Your task to perform on an android device: change your default location settings in chrome Image 0: 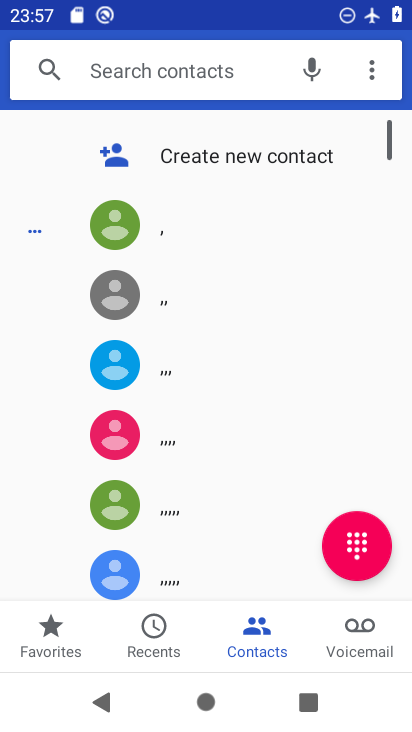
Step 0: press home button
Your task to perform on an android device: change your default location settings in chrome Image 1: 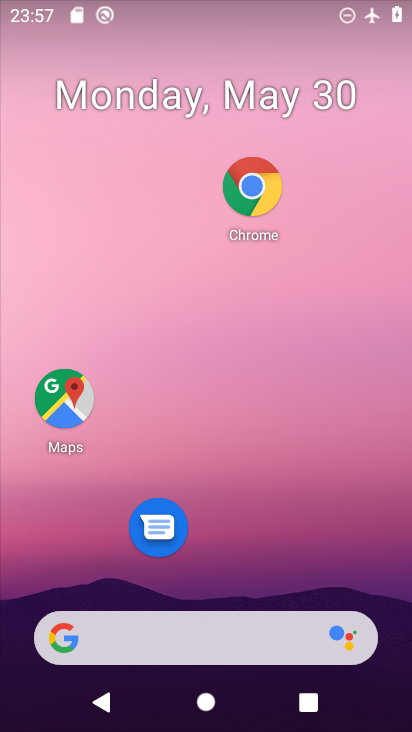
Step 1: drag from (222, 572) to (263, 207)
Your task to perform on an android device: change your default location settings in chrome Image 2: 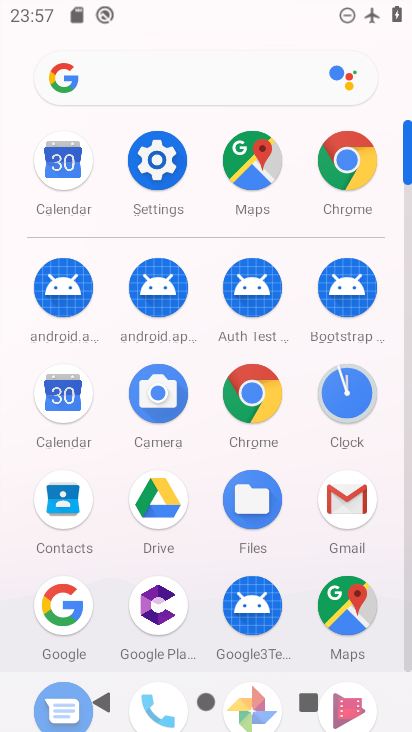
Step 2: click (233, 390)
Your task to perform on an android device: change your default location settings in chrome Image 3: 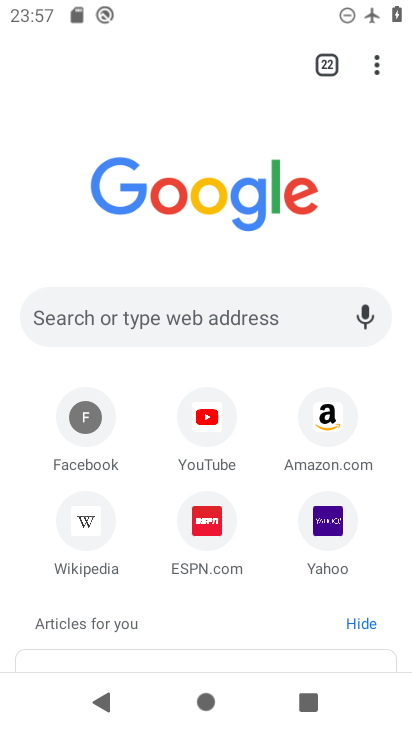
Step 3: click (379, 53)
Your task to perform on an android device: change your default location settings in chrome Image 4: 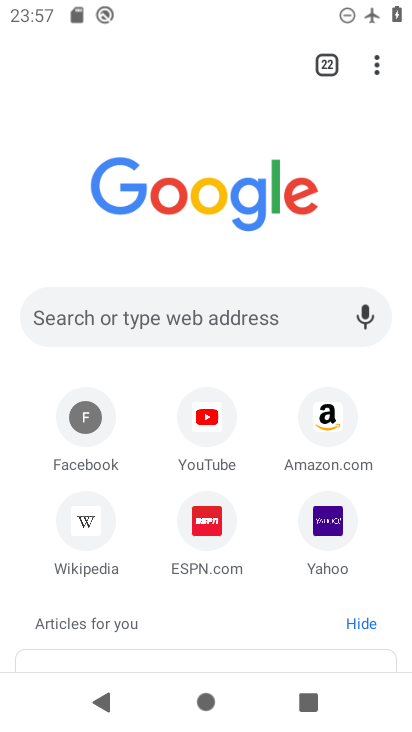
Step 4: click (374, 62)
Your task to perform on an android device: change your default location settings in chrome Image 5: 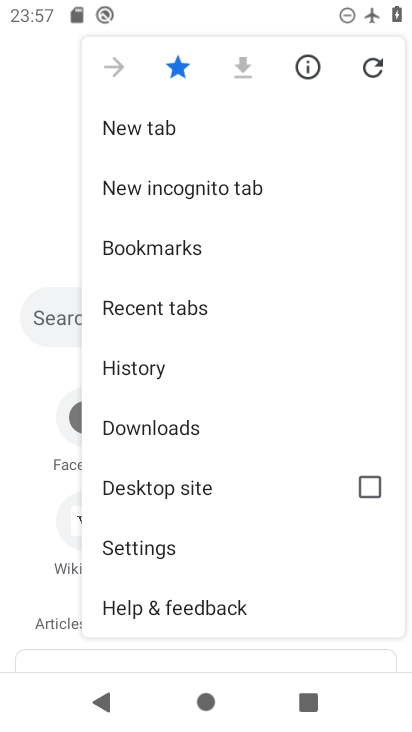
Step 5: click (209, 547)
Your task to perform on an android device: change your default location settings in chrome Image 6: 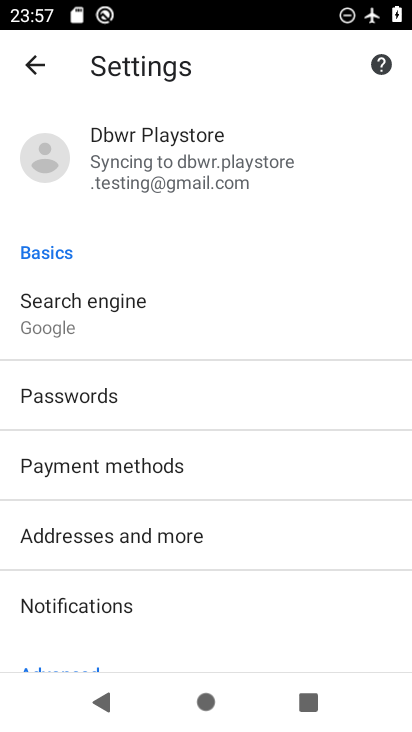
Step 6: drag from (146, 582) to (139, 320)
Your task to perform on an android device: change your default location settings in chrome Image 7: 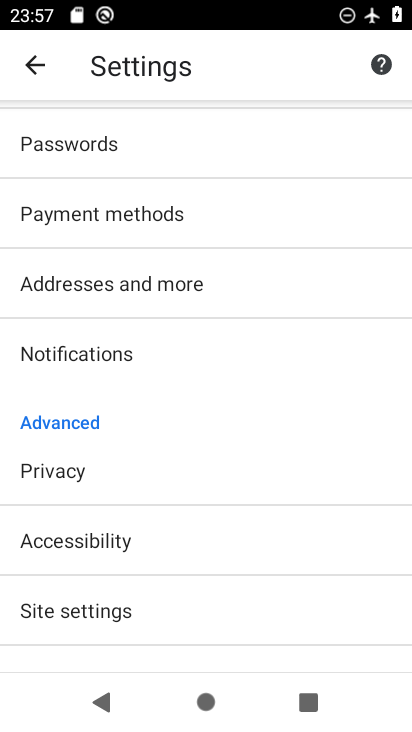
Step 7: drag from (166, 624) to (178, 336)
Your task to perform on an android device: change your default location settings in chrome Image 8: 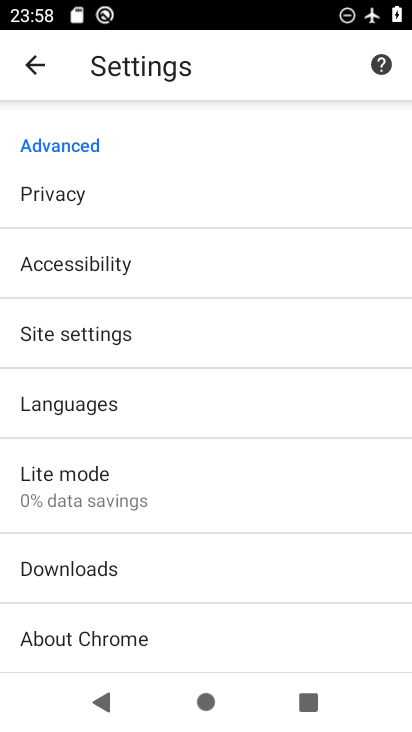
Step 8: drag from (240, 564) to (235, 430)
Your task to perform on an android device: change your default location settings in chrome Image 9: 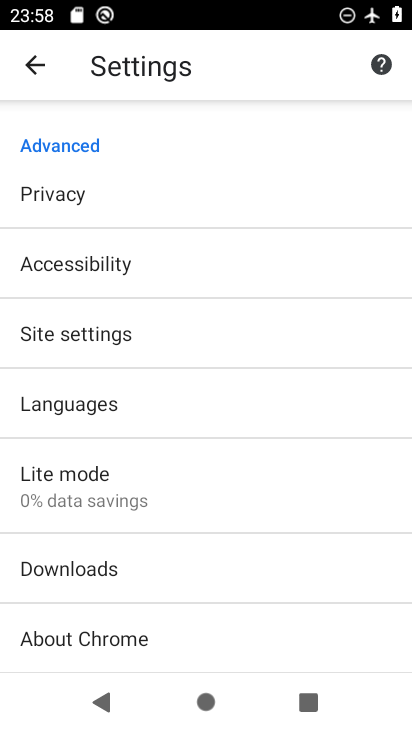
Step 9: click (140, 338)
Your task to perform on an android device: change your default location settings in chrome Image 10: 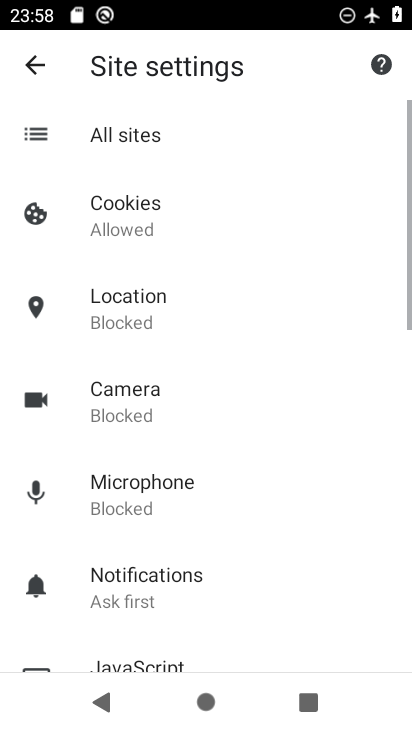
Step 10: click (126, 291)
Your task to perform on an android device: change your default location settings in chrome Image 11: 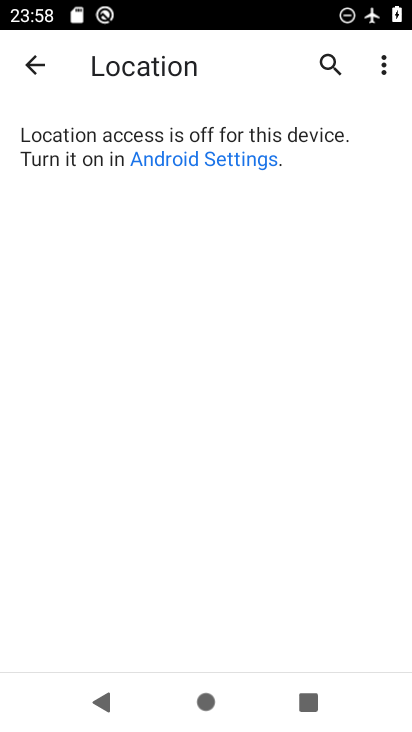
Step 11: task complete